Your task to perform on an android device: Open the calendar app, open the side menu, and click the "Day" option Image 0: 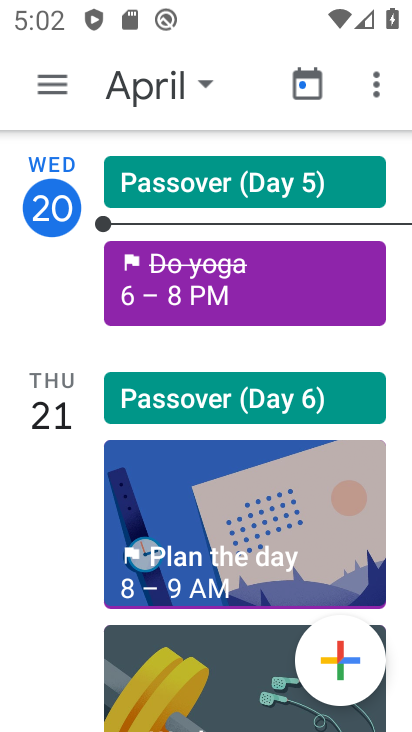
Step 0: click (61, 88)
Your task to perform on an android device: Open the calendar app, open the side menu, and click the "Day" option Image 1: 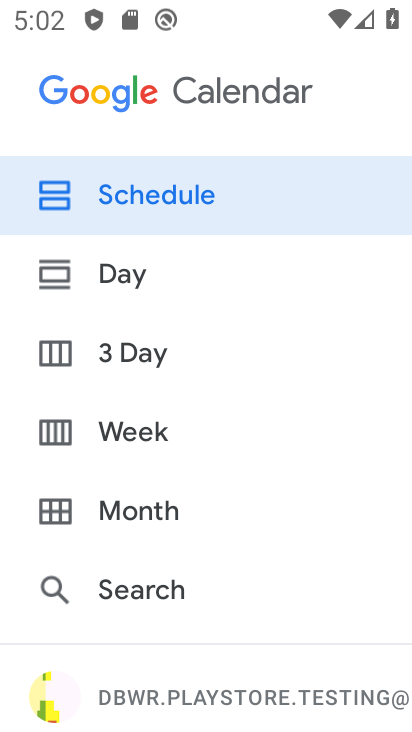
Step 1: click (154, 295)
Your task to perform on an android device: Open the calendar app, open the side menu, and click the "Day" option Image 2: 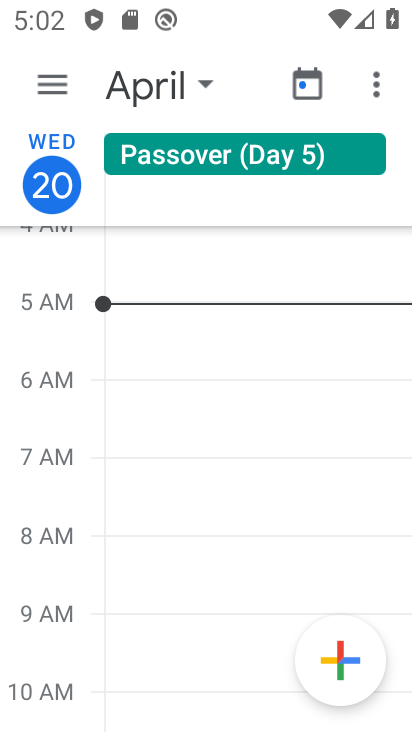
Step 2: task complete